Your task to perform on an android device: refresh tabs in the chrome app Image 0: 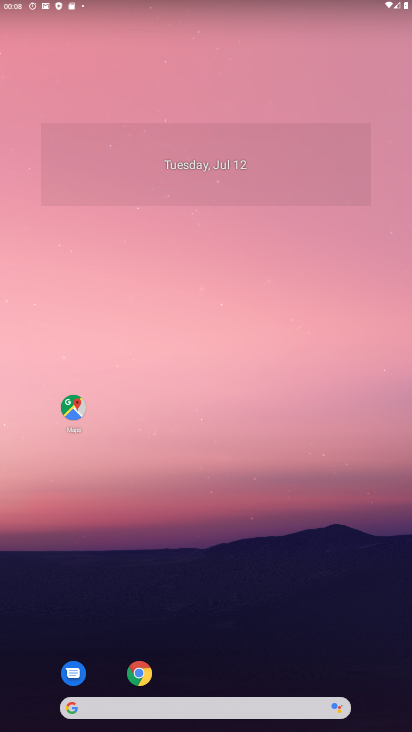
Step 0: click (137, 672)
Your task to perform on an android device: refresh tabs in the chrome app Image 1: 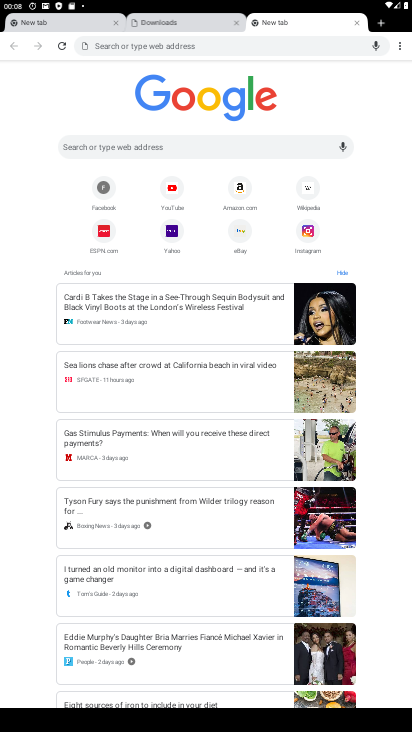
Step 1: drag from (401, 44) to (172, 60)
Your task to perform on an android device: refresh tabs in the chrome app Image 2: 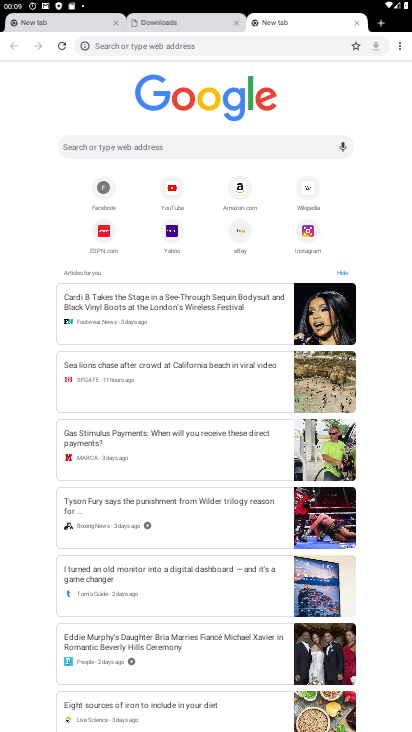
Step 2: click (404, 46)
Your task to perform on an android device: refresh tabs in the chrome app Image 3: 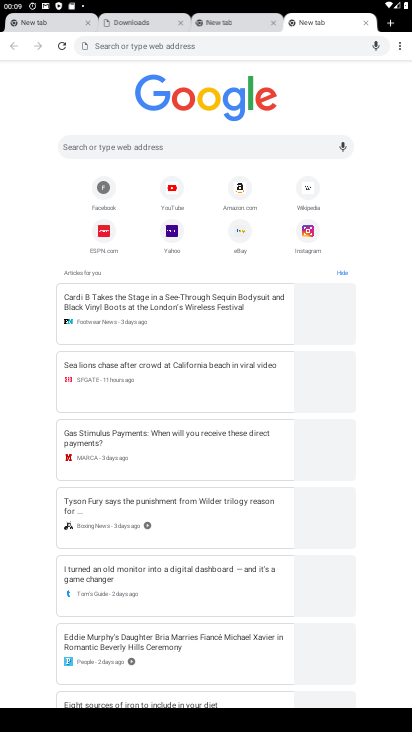
Step 3: click (400, 45)
Your task to perform on an android device: refresh tabs in the chrome app Image 4: 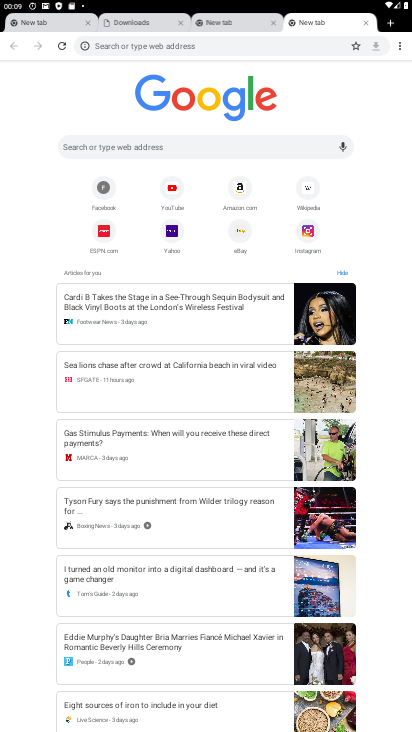
Step 4: click (60, 43)
Your task to perform on an android device: refresh tabs in the chrome app Image 5: 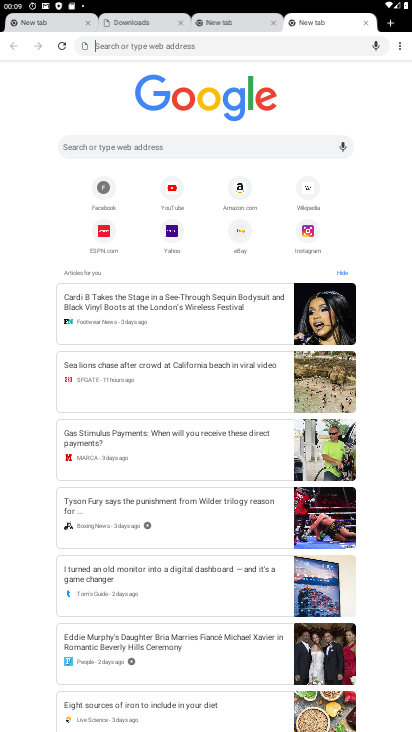
Step 5: click (59, 43)
Your task to perform on an android device: refresh tabs in the chrome app Image 6: 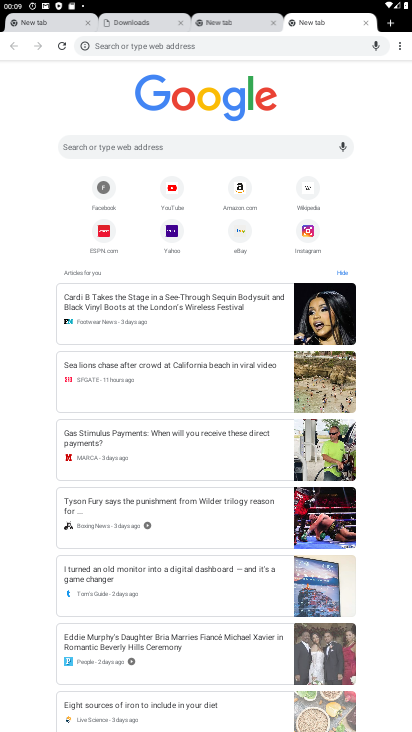
Step 6: click (58, 47)
Your task to perform on an android device: refresh tabs in the chrome app Image 7: 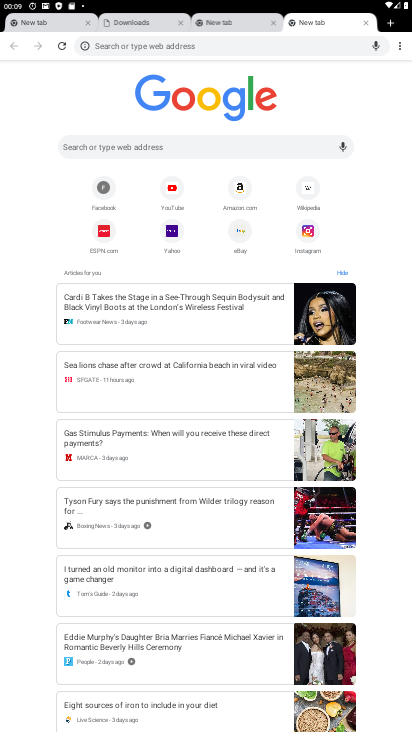
Step 7: task complete